Your task to perform on an android device: Go to Google Image 0: 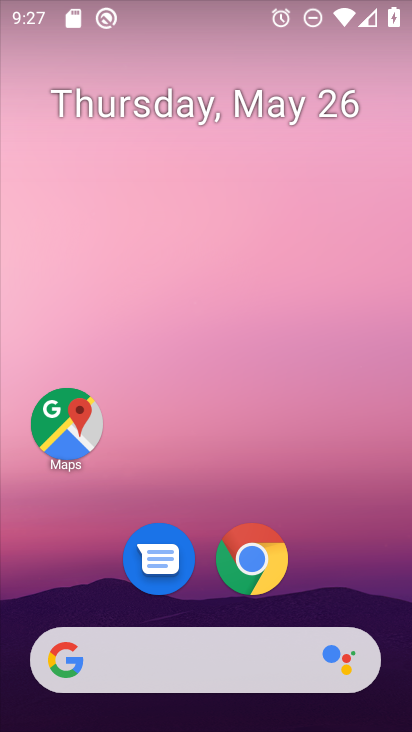
Step 0: drag from (336, 565) to (360, 113)
Your task to perform on an android device: Go to Google Image 1: 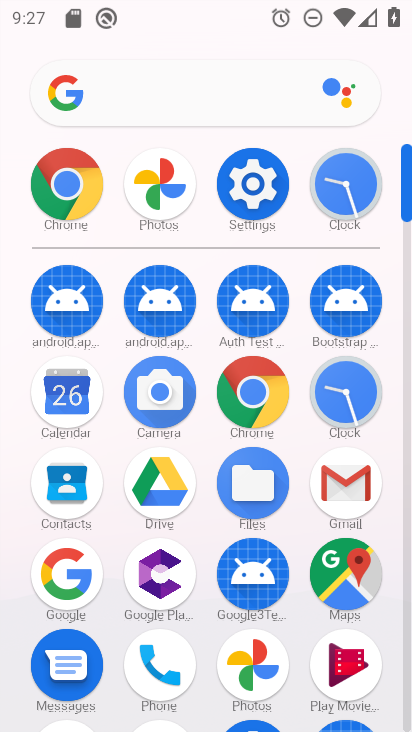
Step 1: click (66, 575)
Your task to perform on an android device: Go to Google Image 2: 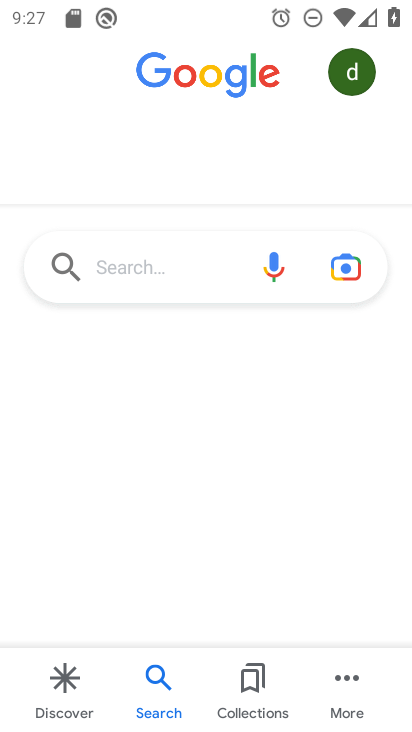
Step 2: task complete